Your task to perform on an android device: turn on sleep mode Image 0: 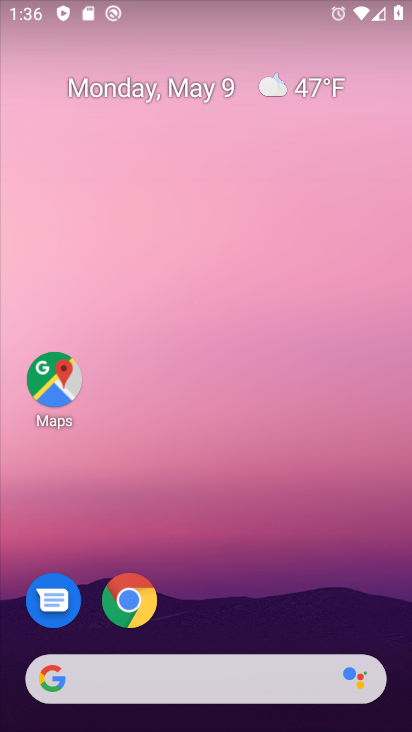
Step 0: drag from (195, 666) to (226, 120)
Your task to perform on an android device: turn on sleep mode Image 1: 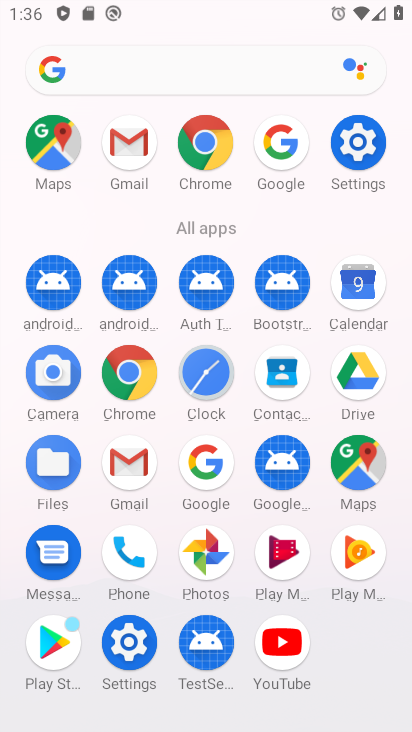
Step 1: click (377, 141)
Your task to perform on an android device: turn on sleep mode Image 2: 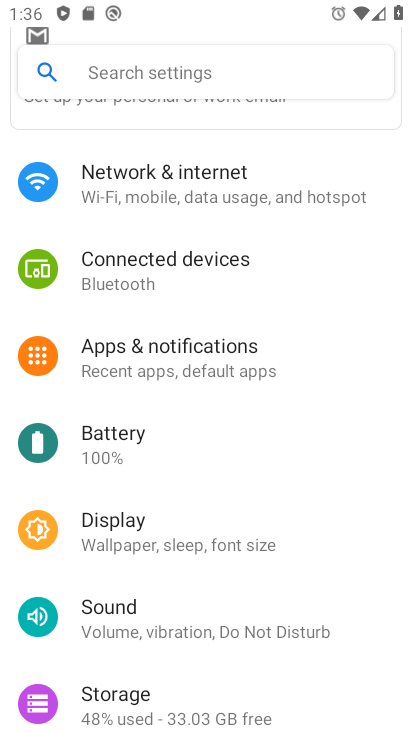
Step 2: click (133, 518)
Your task to perform on an android device: turn on sleep mode Image 3: 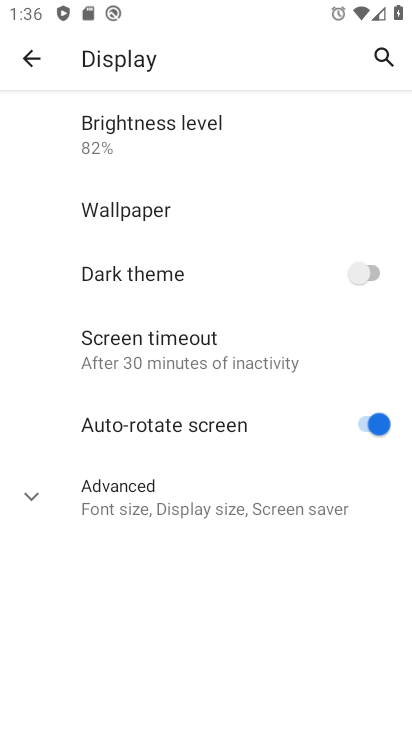
Step 3: click (103, 492)
Your task to perform on an android device: turn on sleep mode Image 4: 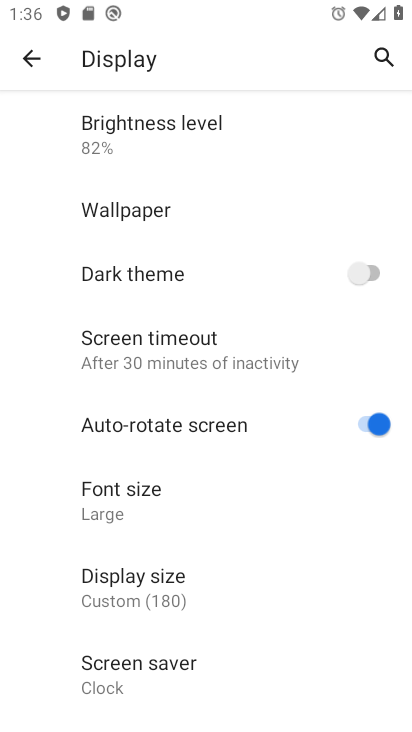
Step 4: task complete